Your task to perform on an android device: find snoozed emails in the gmail app Image 0: 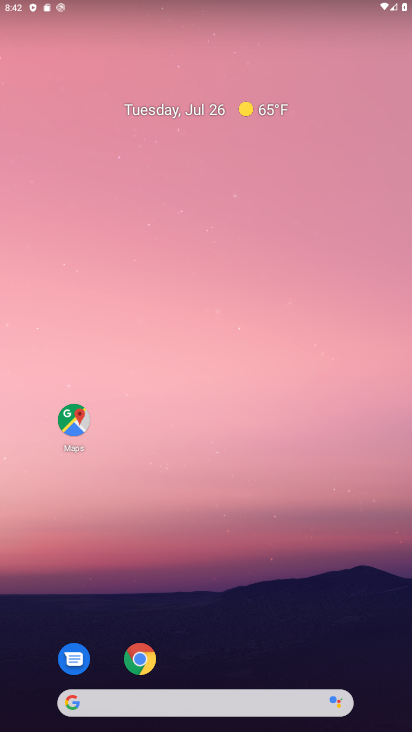
Step 0: drag from (167, 321) to (160, 91)
Your task to perform on an android device: find snoozed emails in the gmail app Image 1: 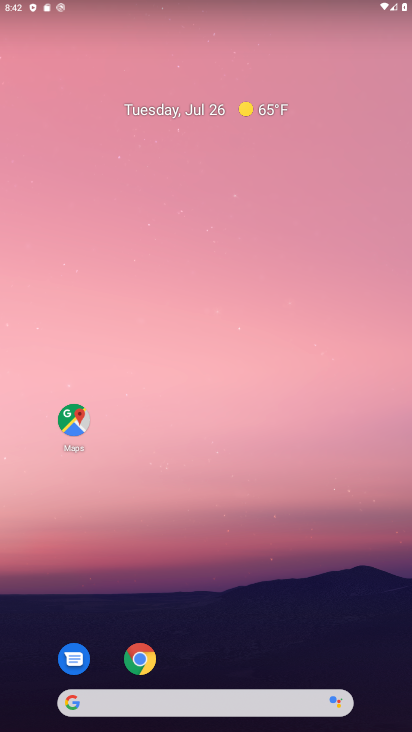
Step 1: drag from (198, 578) to (99, 0)
Your task to perform on an android device: find snoozed emails in the gmail app Image 2: 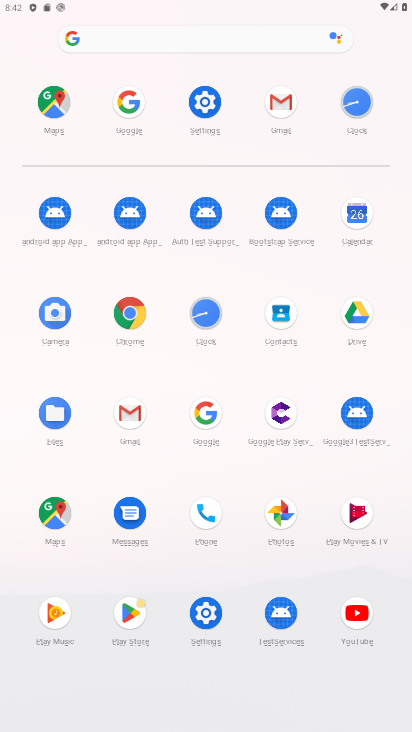
Step 2: click (280, 100)
Your task to perform on an android device: find snoozed emails in the gmail app Image 3: 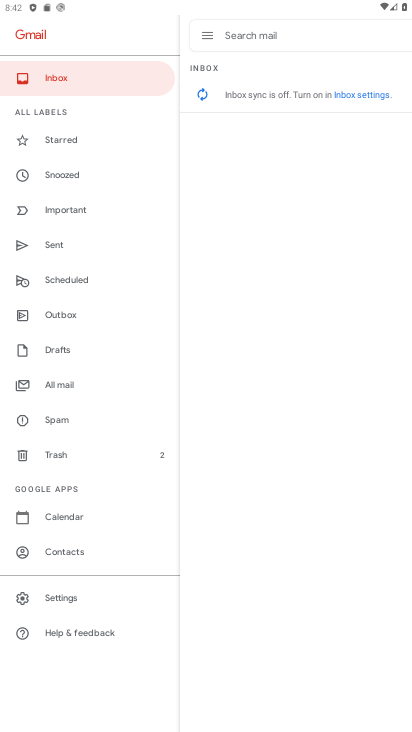
Step 3: click (66, 178)
Your task to perform on an android device: find snoozed emails in the gmail app Image 4: 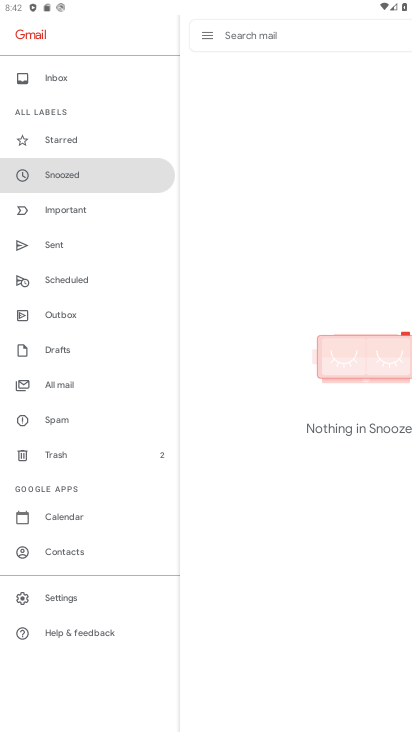
Step 4: task complete